Your task to perform on an android device: Open privacy settings Image 0: 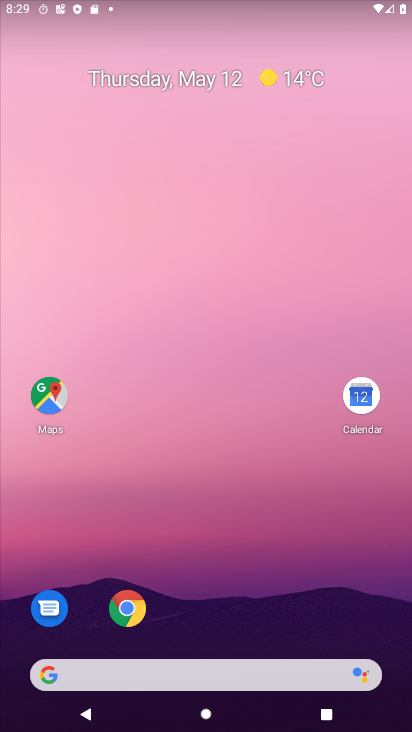
Step 0: drag from (304, 531) to (348, 100)
Your task to perform on an android device: Open privacy settings Image 1: 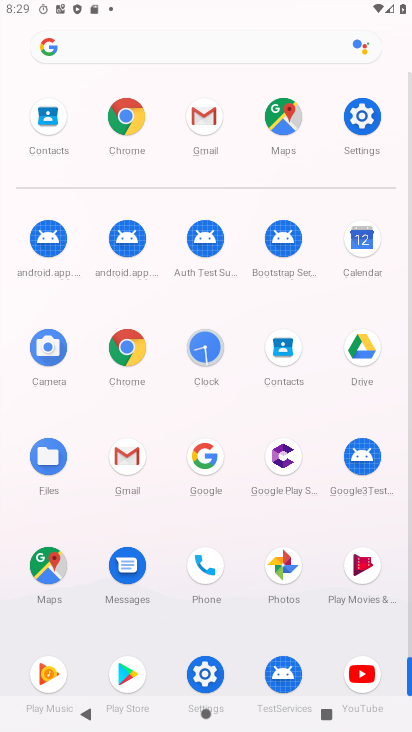
Step 1: click (374, 112)
Your task to perform on an android device: Open privacy settings Image 2: 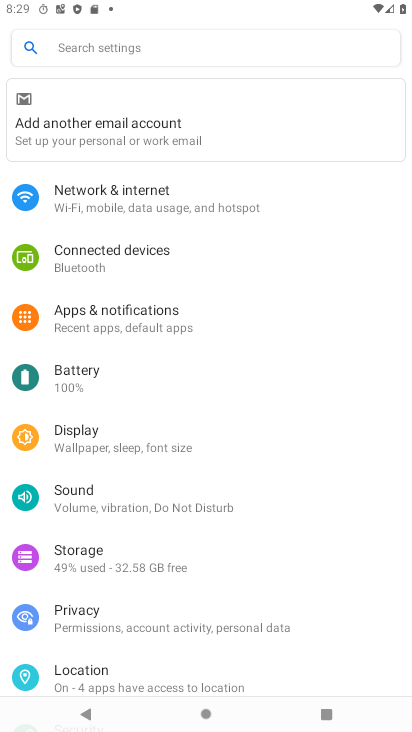
Step 2: task complete